Your task to perform on an android device: Open Chrome and go to the settings page Image 0: 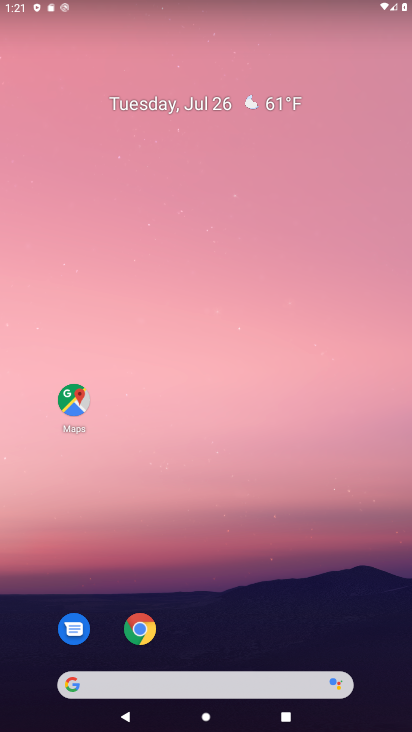
Step 0: click (141, 642)
Your task to perform on an android device: Open Chrome and go to the settings page Image 1: 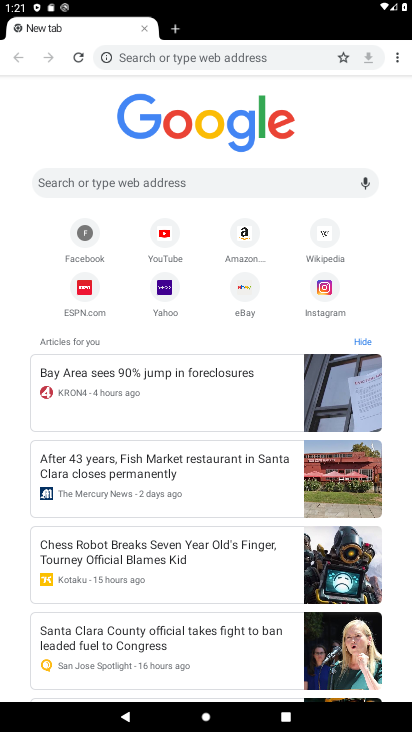
Step 1: click (403, 61)
Your task to perform on an android device: Open Chrome and go to the settings page Image 2: 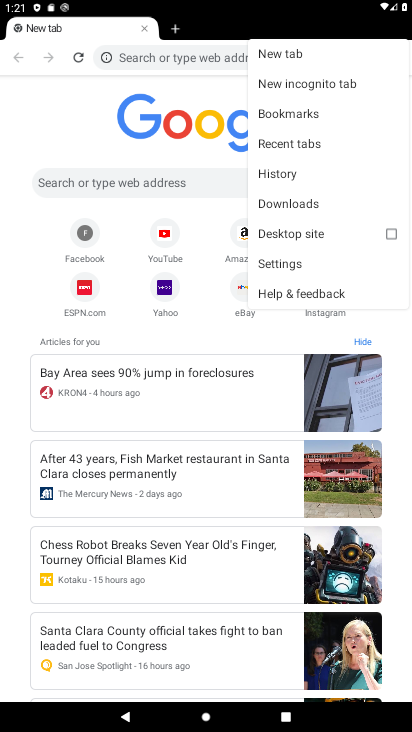
Step 2: click (276, 267)
Your task to perform on an android device: Open Chrome and go to the settings page Image 3: 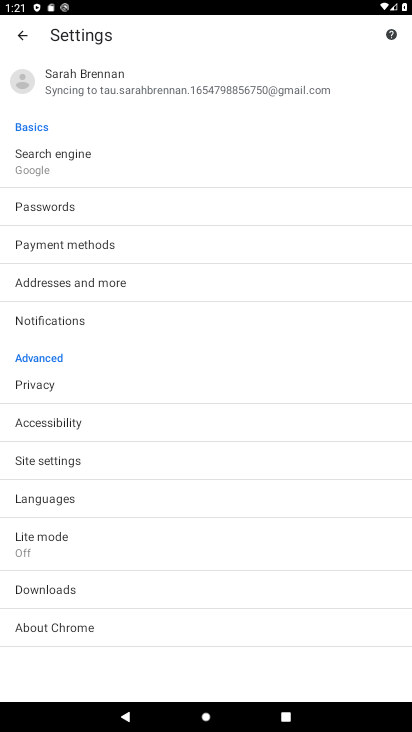
Step 3: task complete